Your task to perform on an android device: Open the map Image 0: 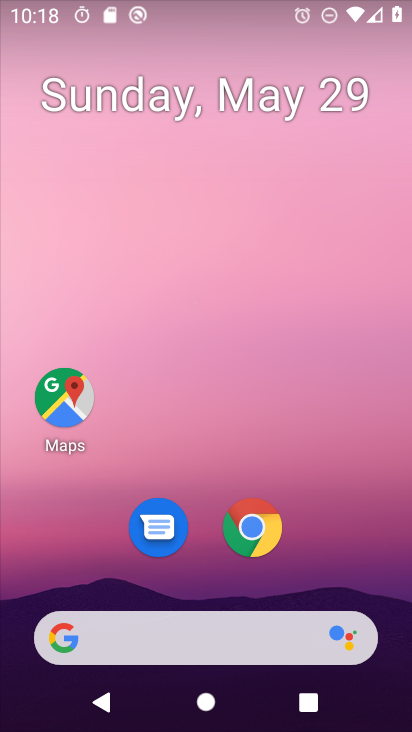
Step 0: drag from (398, 622) to (266, 72)
Your task to perform on an android device: Open the map Image 1: 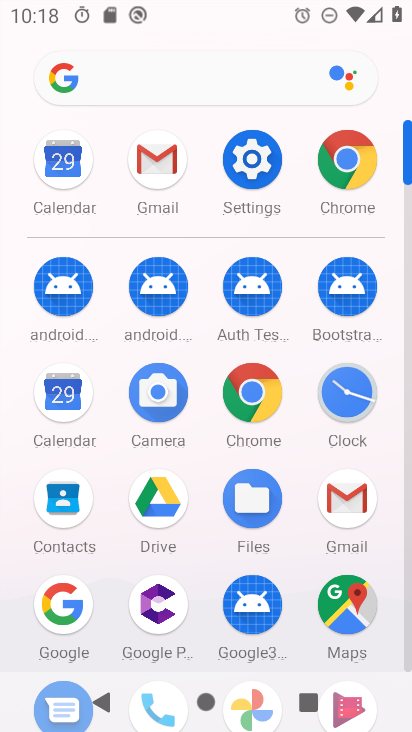
Step 1: click (346, 609)
Your task to perform on an android device: Open the map Image 2: 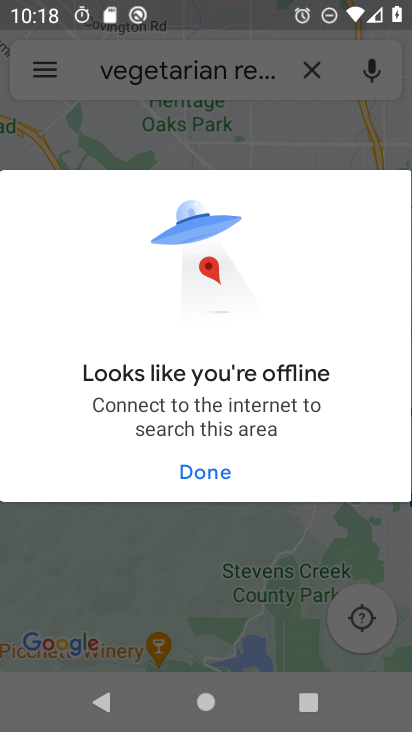
Step 2: press back button
Your task to perform on an android device: Open the map Image 3: 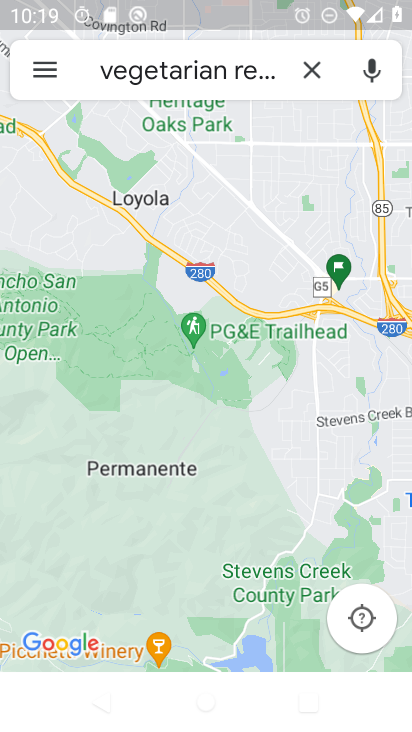
Step 3: click (321, 73)
Your task to perform on an android device: Open the map Image 4: 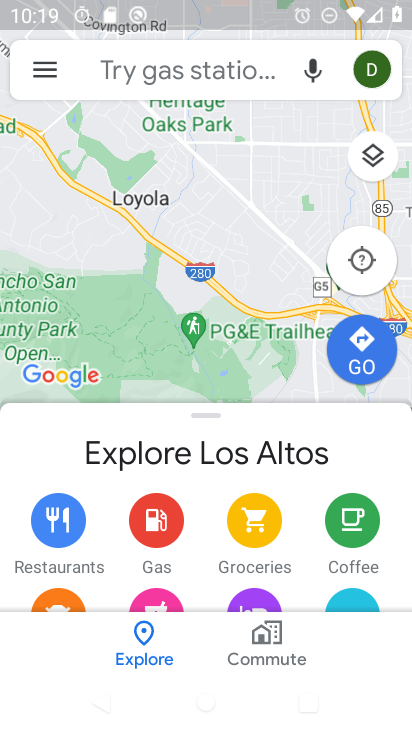
Step 4: task complete